Your task to perform on an android device: add a contact in the contacts app Image 0: 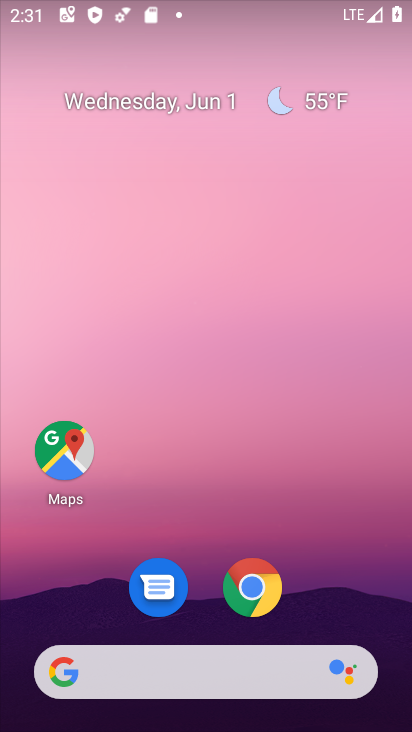
Step 0: drag from (237, 677) to (166, 183)
Your task to perform on an android device: add a contact in the contacts app Image 1: 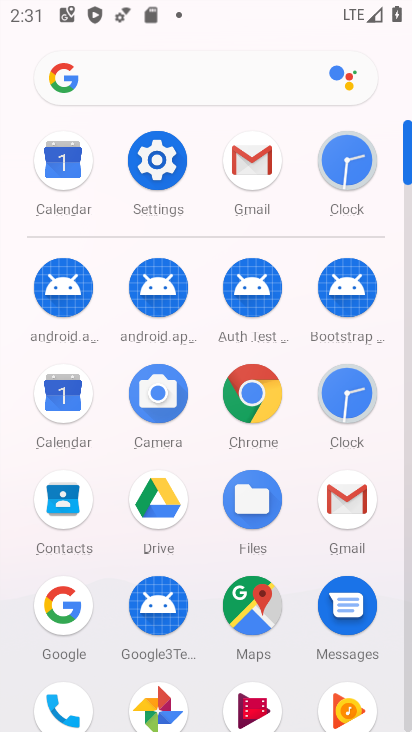
Step 1: click (68, 517)
Your task to perform on an android device: add a contact in the contacts app Image 2: 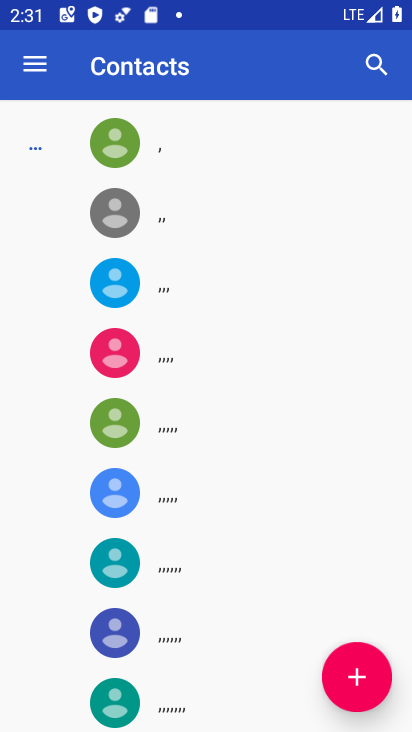
Step 2: click (361, 681)
Your task to perform on an android device: add a contact in the contacts app Image 3: 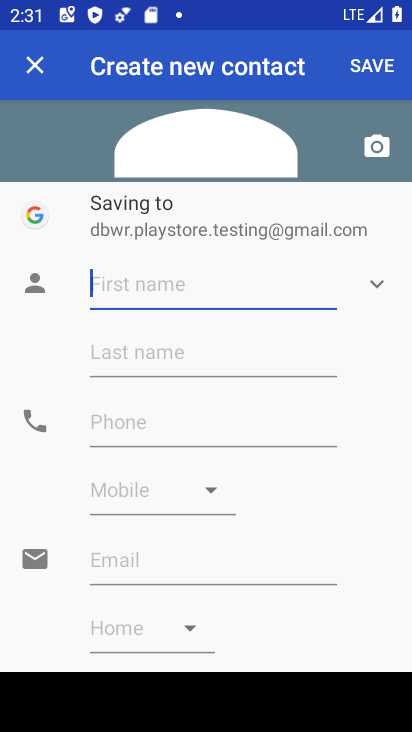
Step 3: type "jdskfhuiew"
Your task to perform on an android device: add a contact in the contacts app Image 4: 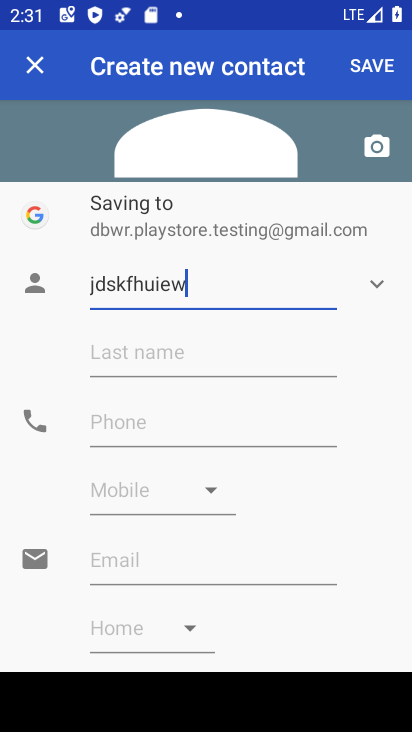
Step 4: click (162, 432)
Your task to perform on an android device: add a contact in the contacts app Image 5: 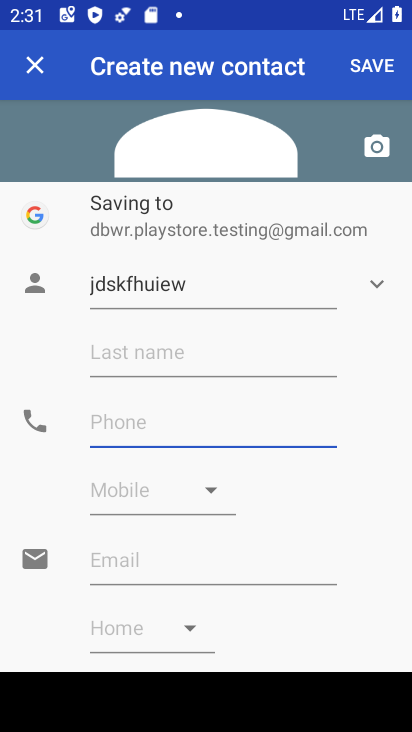
Step 5: type ""
Your task to perform on an android device: add a contact in the contacts app Image 6: 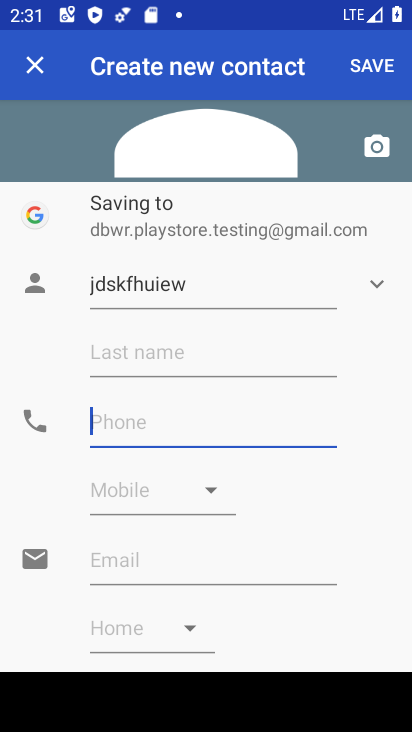
Step 6: type "3993381"
Your task to perform on an android device: add a contact in the contacts app Image 7: 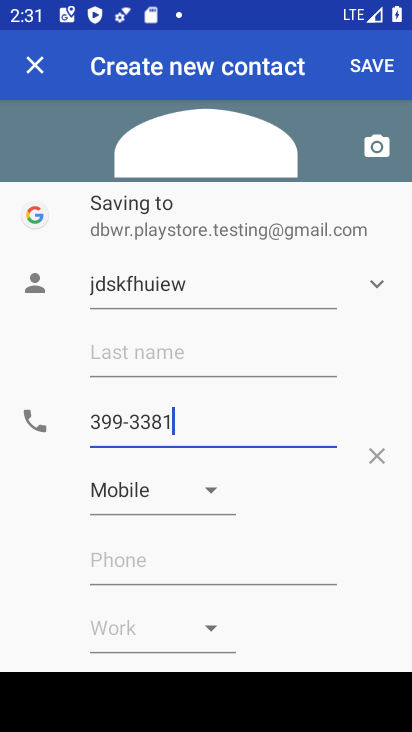
Step 7: click (370, 66)
Your task to perform on an android device: add a contact in the contacts app Image 8: 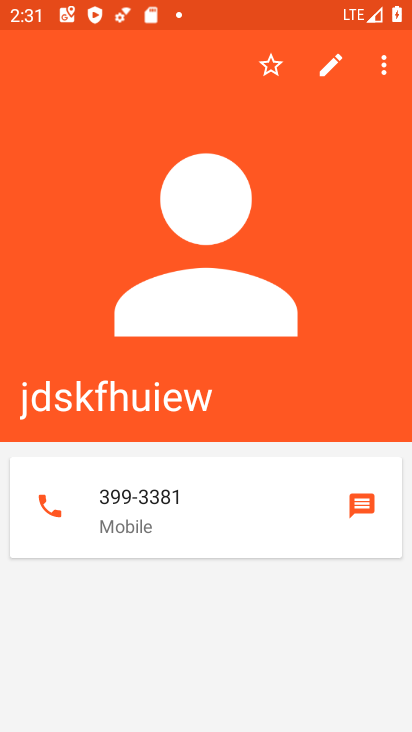
Step 8: task complete